Your task to perform on an android device: toggle airplane mode Image 0: 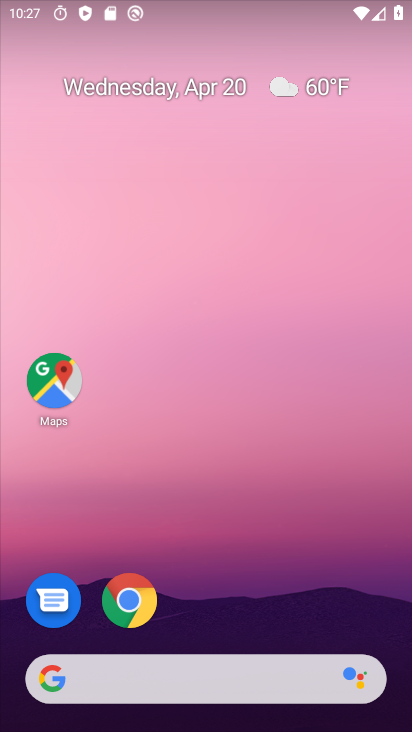
Step 0: drag from (292, 12) to (330, 565)
Your task to perform on an android device: toggle airplane mode Image 1: 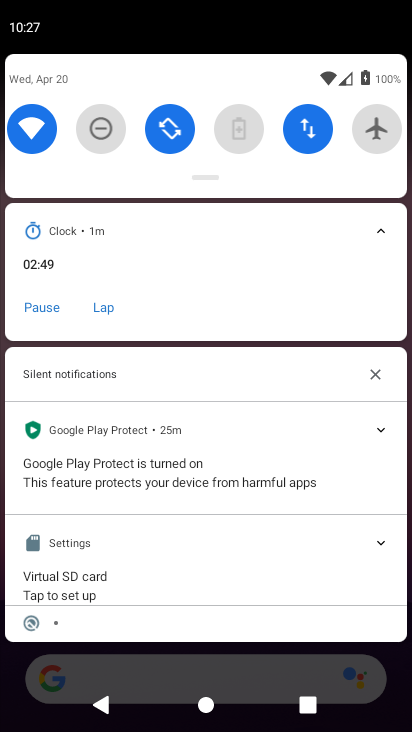
Step 1: click (383, 131)
Your task to perform on an android device: toggle airplane mode Image 2: 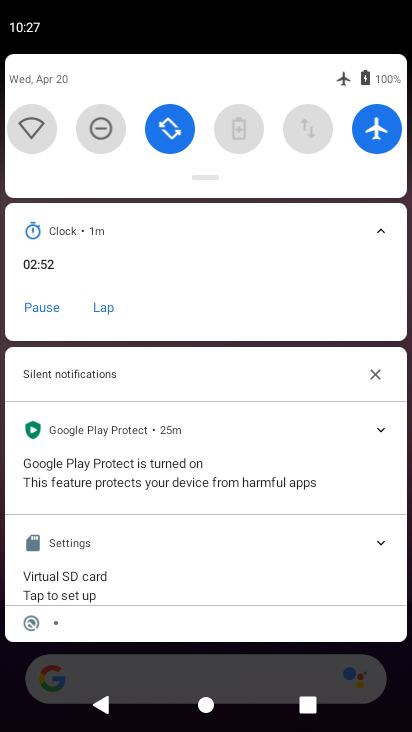
Step 2: click (383, 131)
Your task to perform on an android device: toggle airplane mode Image 3: 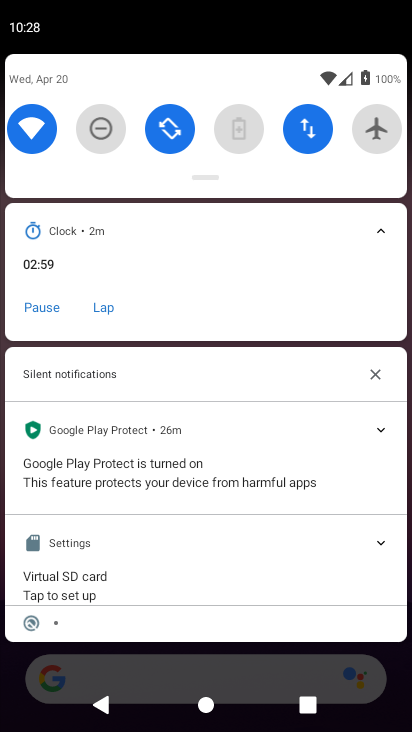
Step 3: click (383, 131)
Your task to perform on an android device: toggle airplane mode Image 4: 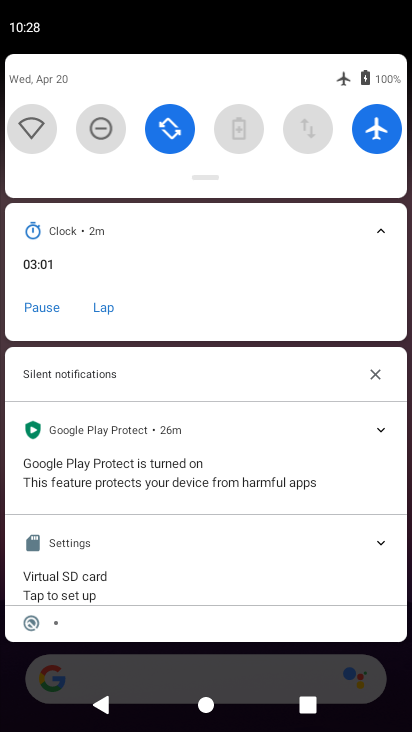
Step 4: click (383, 131)
Your task to perform on an android device: toggle airplane mode Image 5: 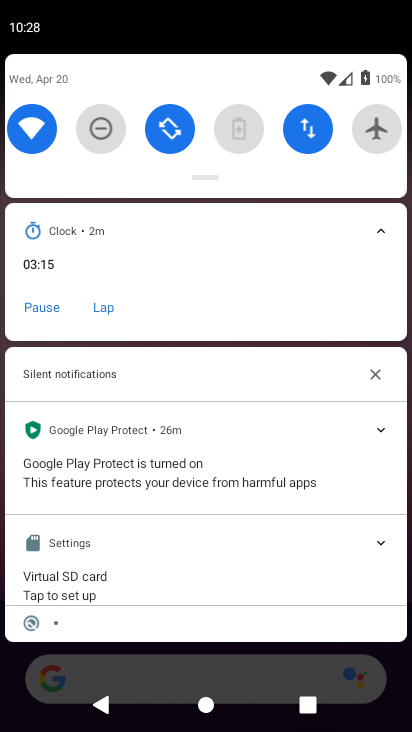
Step 5: task complete